Your task to perform on an android device: allow cookies in the chrome app Image 0: 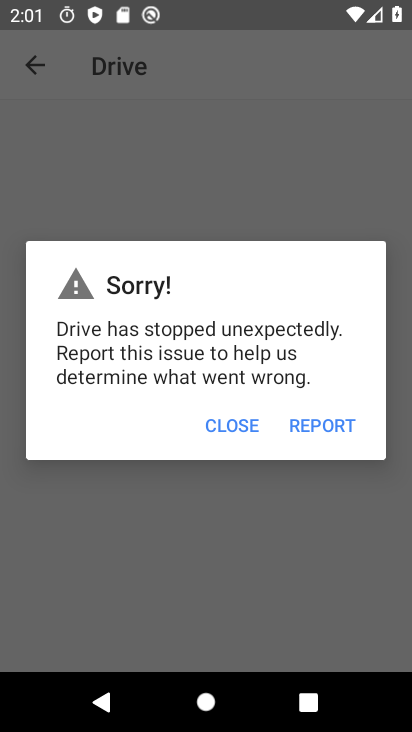
Step 0: press home button
Your task to perform on an android device: allow cookies in the chrome app Image 1: 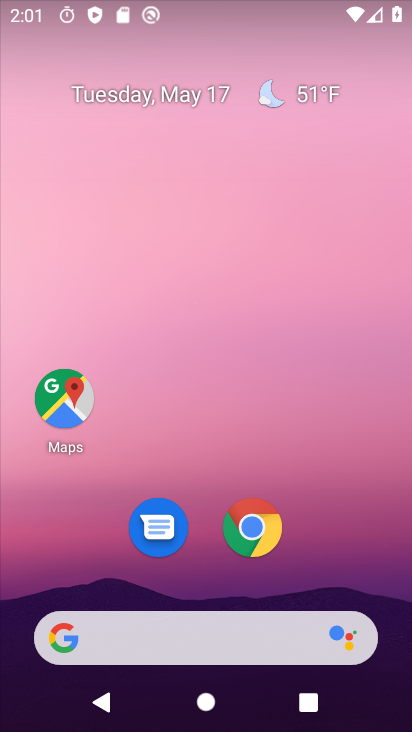
Step 1: click (253, 523)
Your task to perform on an android device: allow cookies in the chrome app Image 2: 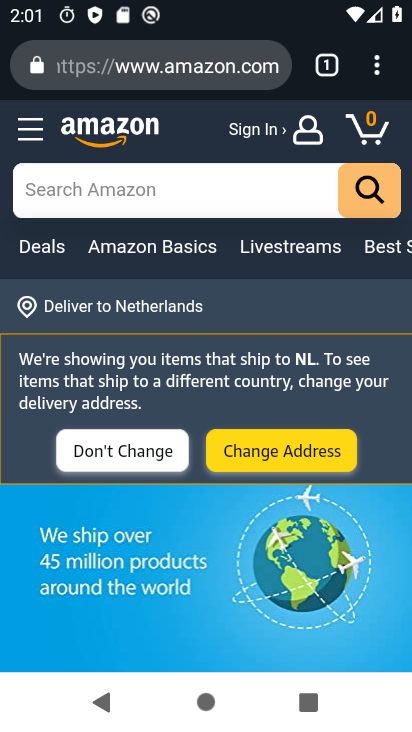
Step 2: click (377, 67)
Your task to perform on an android device: allow cookies in the chrome app Image 3: 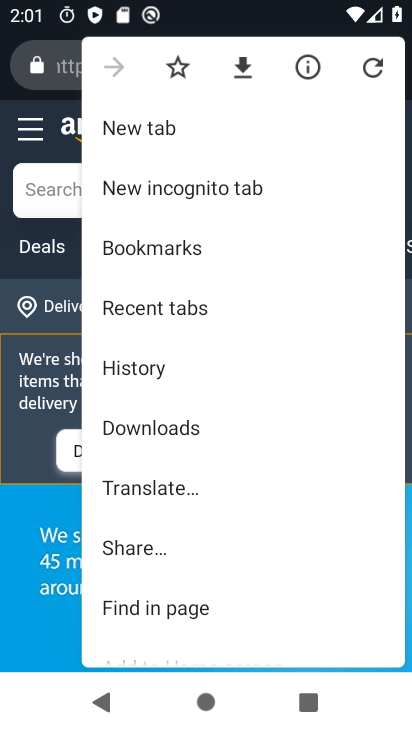
Step 3: drag from (194, 528) to (221, 448)
Your task to perform on an android device: allow cookies in the chrome app Image 4: 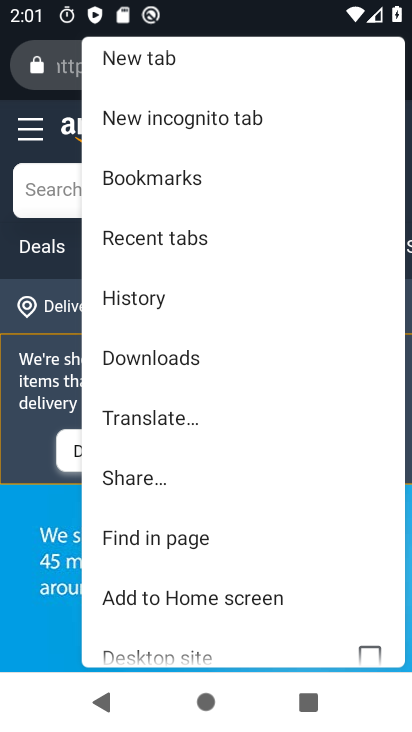
Step 4: drag from (183, 501) to (218, 440)
Your task to perform on an android device: allow cookies in the chrome app Image 5: 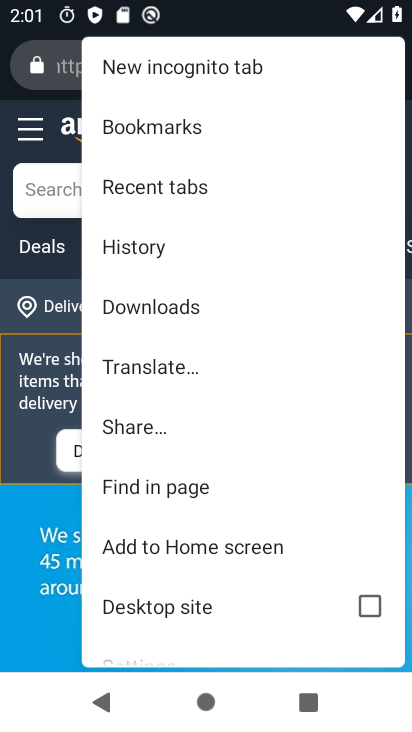
Step 5: drag from (180, 530) to (208, 465)
Your task to perform on an android device: allow cookies in the chrome app Image 6: 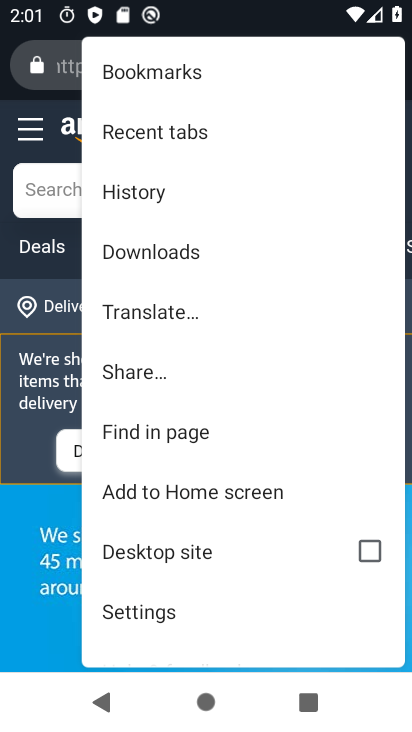
Step 6: click (144, 612)
Your task to perform on an android device: allow cookies in the chrome app Image 7: 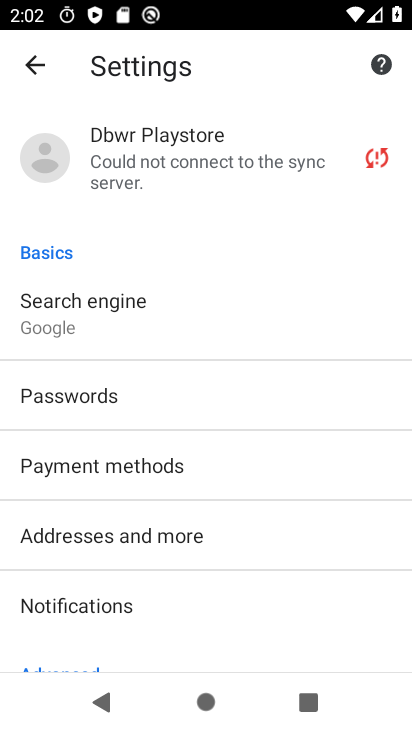
Step 7: drag from (124, 520) to (168, 415)
Your task to perform on an android device: allow cookies in the chrome app Image 8: 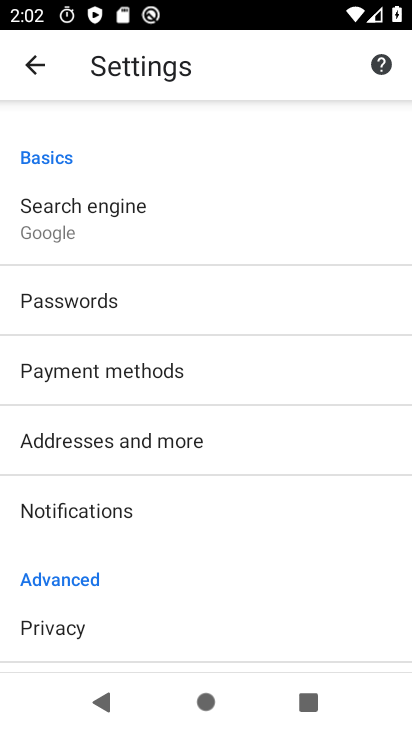
Step 8: drag from (123, 541) to (187, 427)
Your task to perform on an android device: allow cookies in the chrome app Image 9: 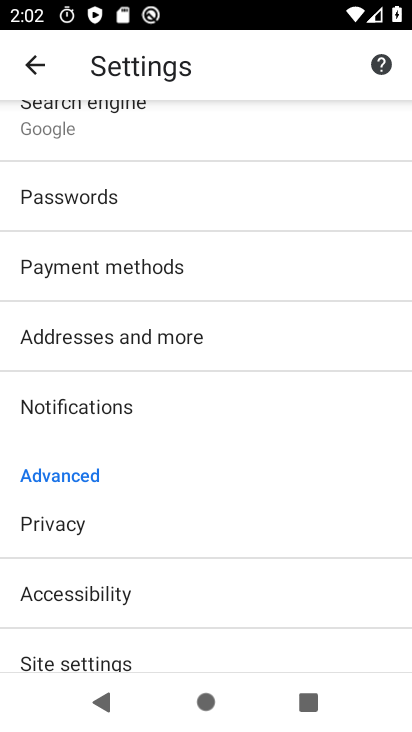
Step 9: drag from (151, 572) to (183, 491)
Your task to perform on an android device: allow cookies in the chrome app Image 10: 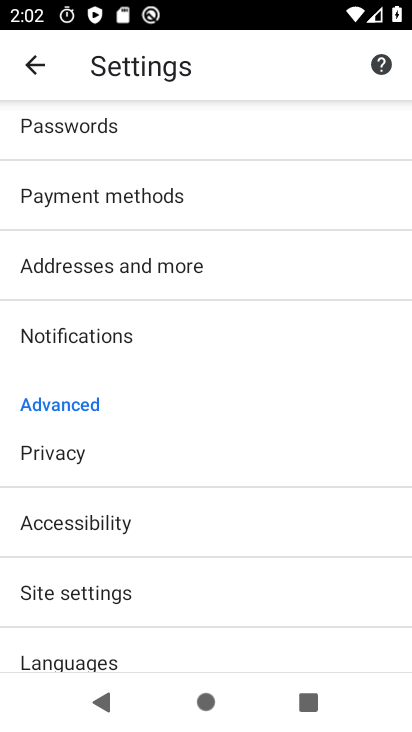
Step 10: click (93, 595)
Your task to perform on an android device: allow cookies in the chrome app Image 11: 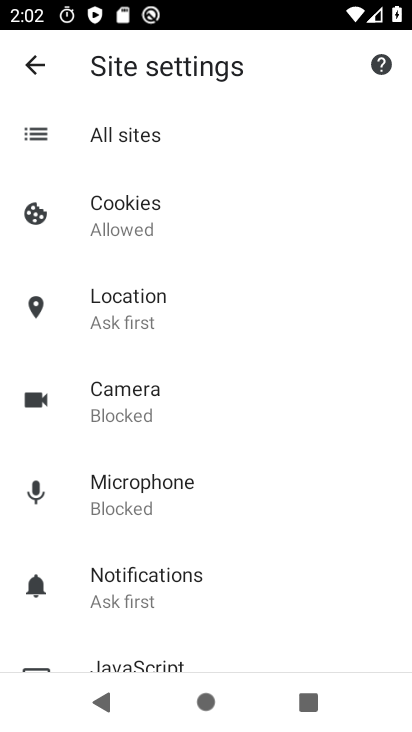
Step 11: click (129, 232)
Your task to perform on an android device: allow cookies in the chrome app Image 12: 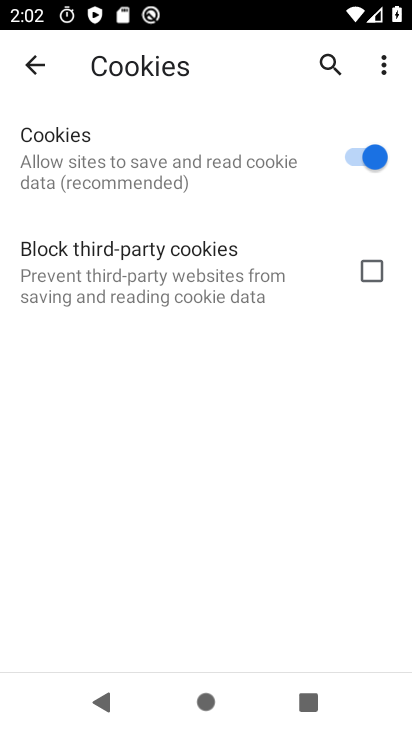
Step 12: click (364, 266)
Your task to perform on an android device: allow cookies in the chrome app Image 13: 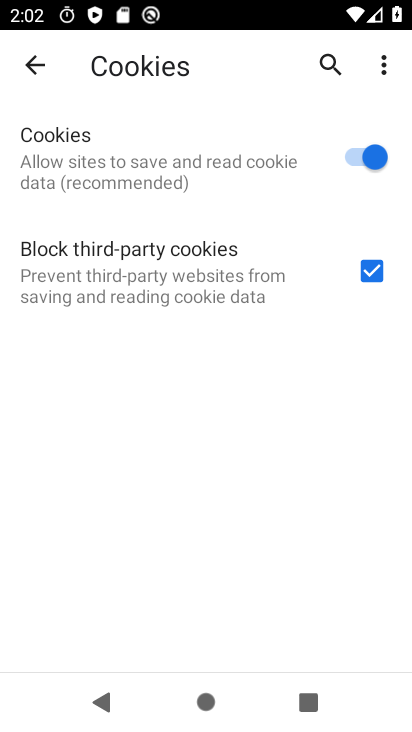
Step 13: task complete